Your task to perform on an android device: Open Google Image 0: 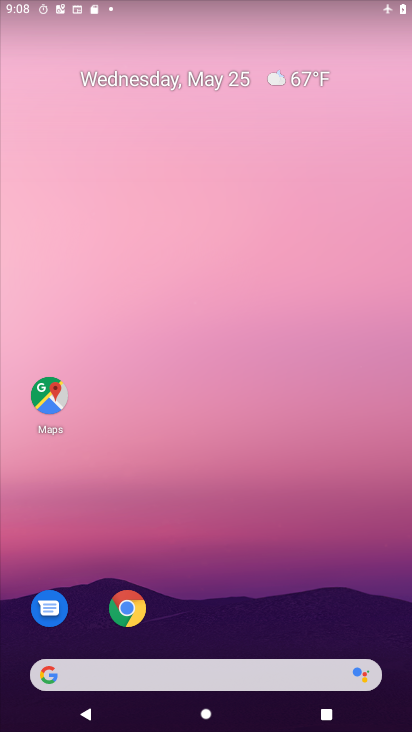
Step 0: drag from (226, 718) to (155, 148)
Your task to perform on an android device: Open Google Image 1: 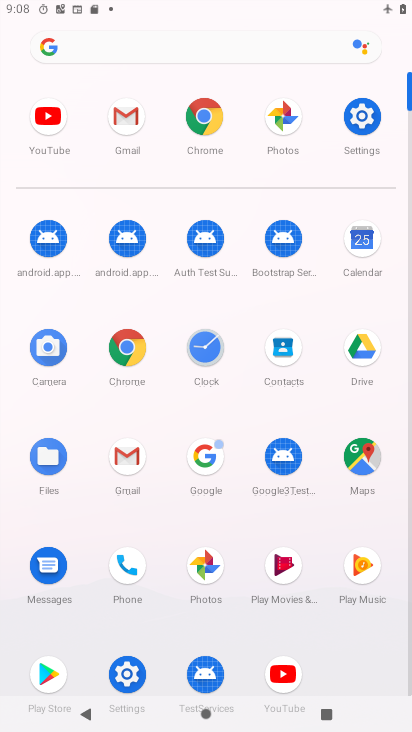
Step 1: click (209, 452)
Your task to perform on an android device: Open Google Image 2: 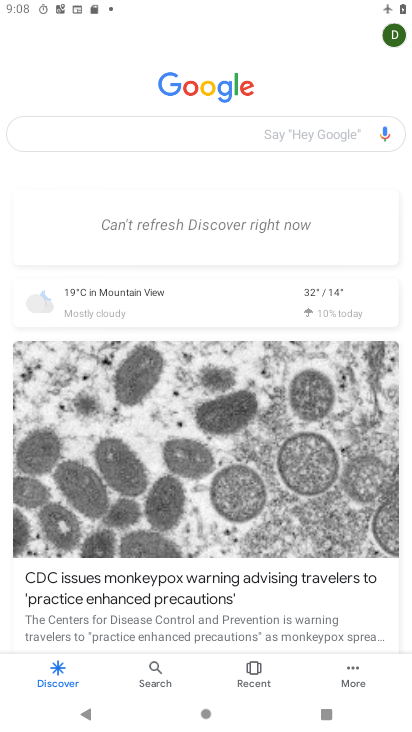
Step 2: task complete